Your task to perform on an android device: turn off airplane mode Image 0: 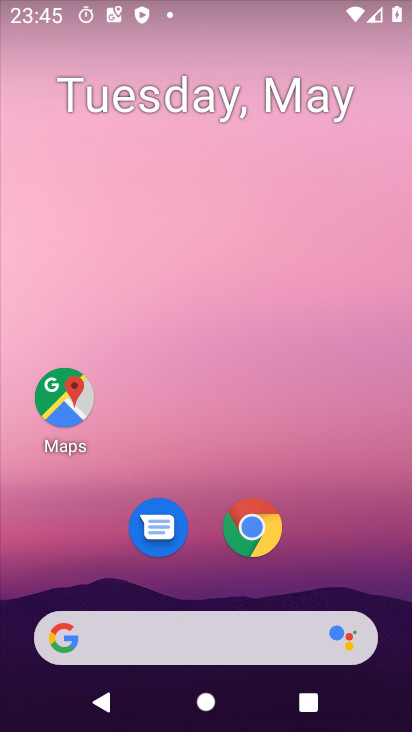
Step 0: drag from (229, 549) to (220, 296)
Your task to perform on an android device: turn off airplane mode Image 1: 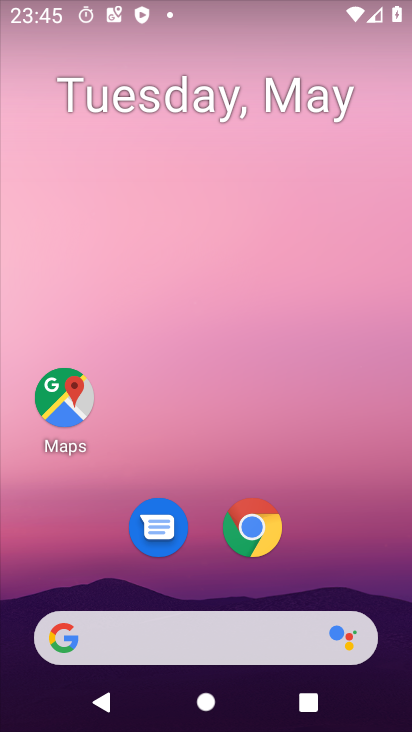
Step 1: drag from (215, 571) to (308, 219)
Your task to perform on an android device: turn off airplane mode Image 2: 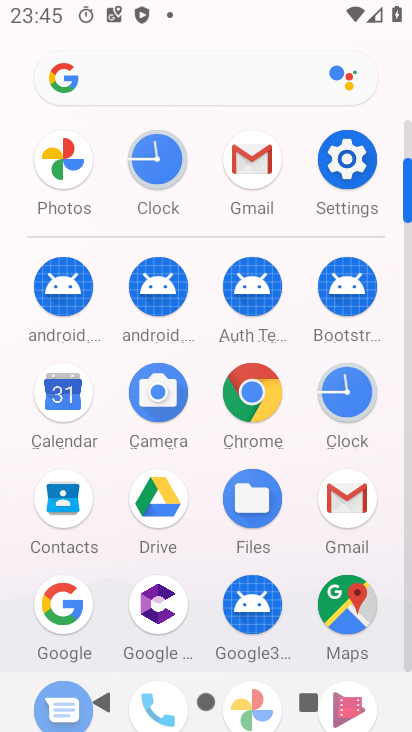
Step 2: click (338, 171)
Your task to perform on an android device: turn off airplane mode Image 3: 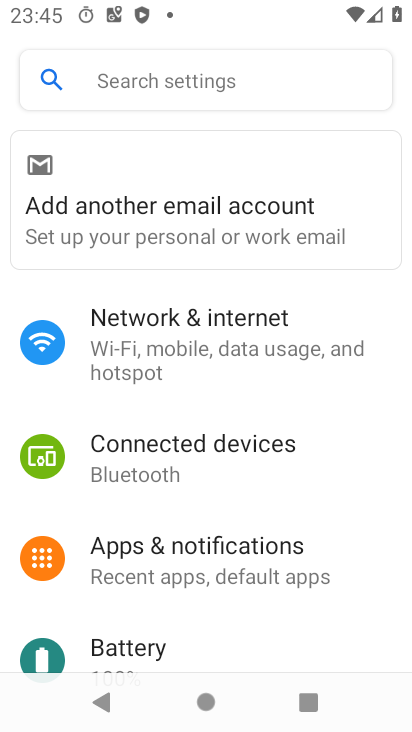
Step 3: click (243, 351)
Your task to perform on an android device: turn off airplane mode Image 4: 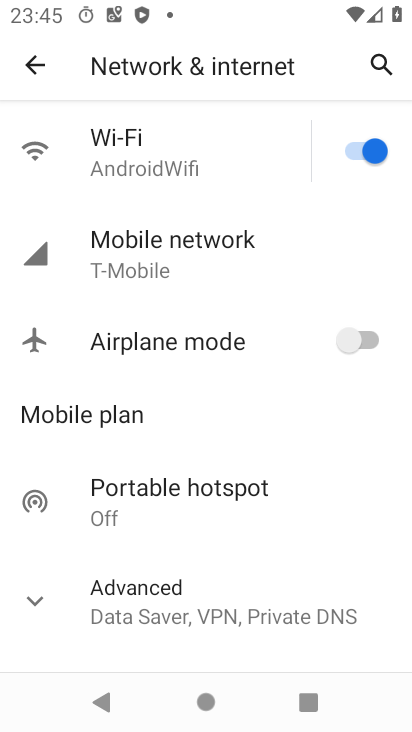
Step 4: task complete